Your task to perform on an android device: see creations saved in the google photos Image 0: 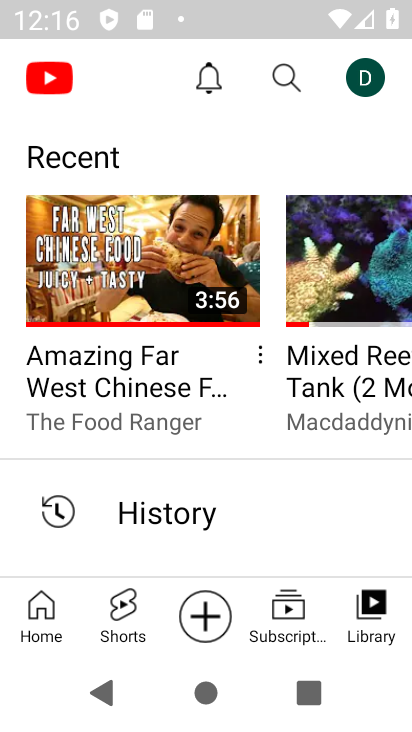
Step 0: press home button
Your task to perform on an android device: see creations saved in the google photos Image 1: 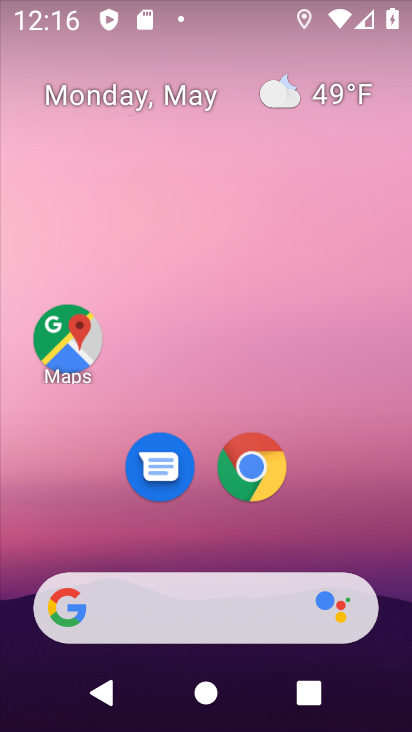
Step 1: drag from (360, 508) to (408, 102)
Your task to perform on an android device: see creations saved in the google photos Image 2: 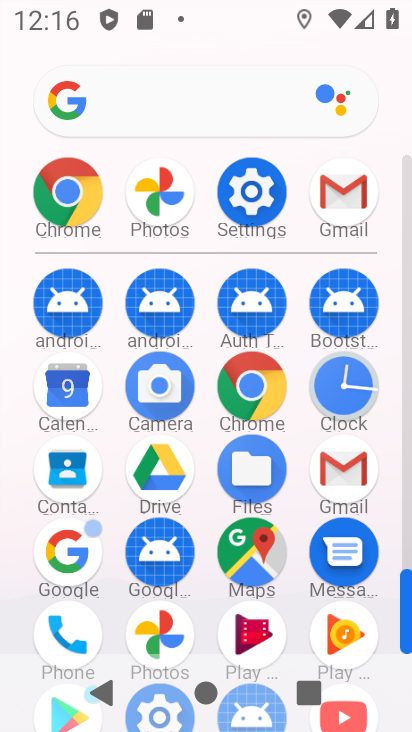
Step 2: click (153, 638)
Your task to perform on an android device: see creations saved in the google photos Image 3: 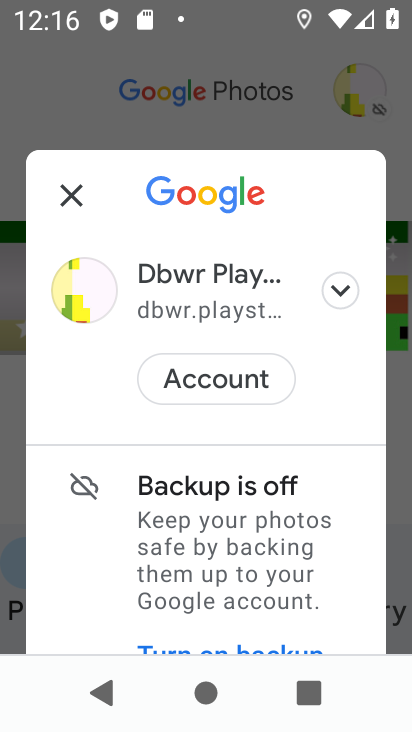
Step 3: click (67, 194)
Your task to perform on an android device: see creations saved in the google photos Image 4: 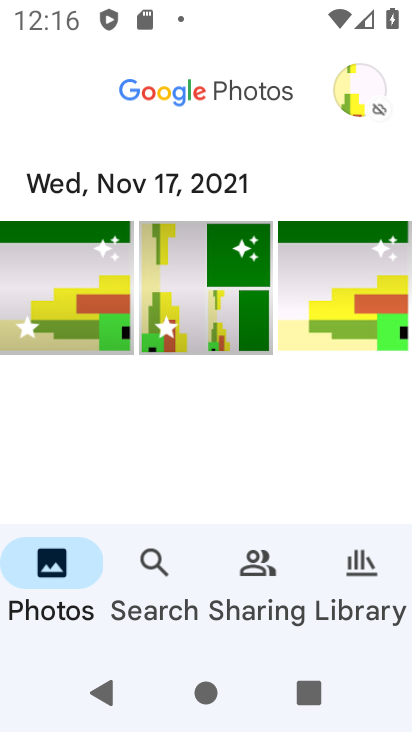
Step 4: click (142, 563)
Your task to perform on an android device: see creations saved in the google photos Image 5: 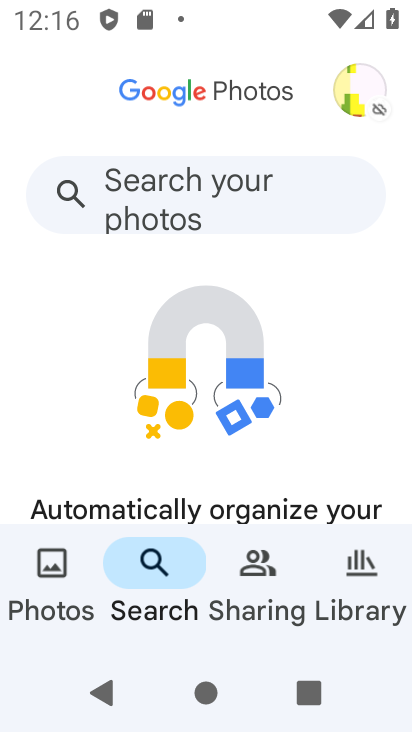
Step 5: click (157, 215)
Your task to perform on an android device: see creations saved in the google photos Image 6: 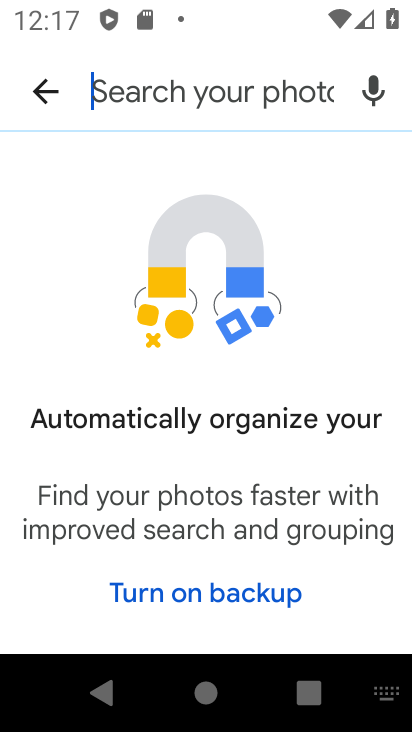
Step 6: type "creations "
Your task to perform on an android device: see creations saved in the google photos Image 7: 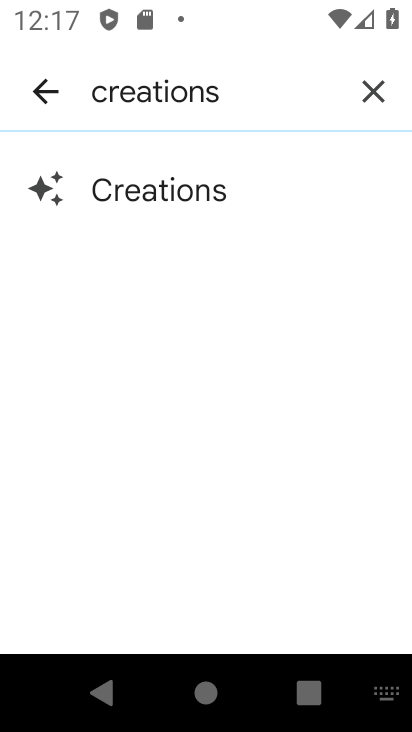
Step 7: click (161, 193)
Your task to perform on an android device: see creations saved in the google photos Image 8: 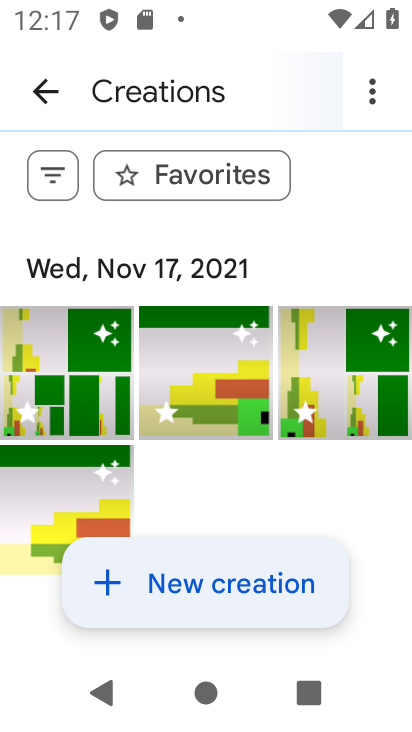
Step 8: task complete